Your task to perform on an android device: open the mobile data screen to see how much data has been used Image 0: 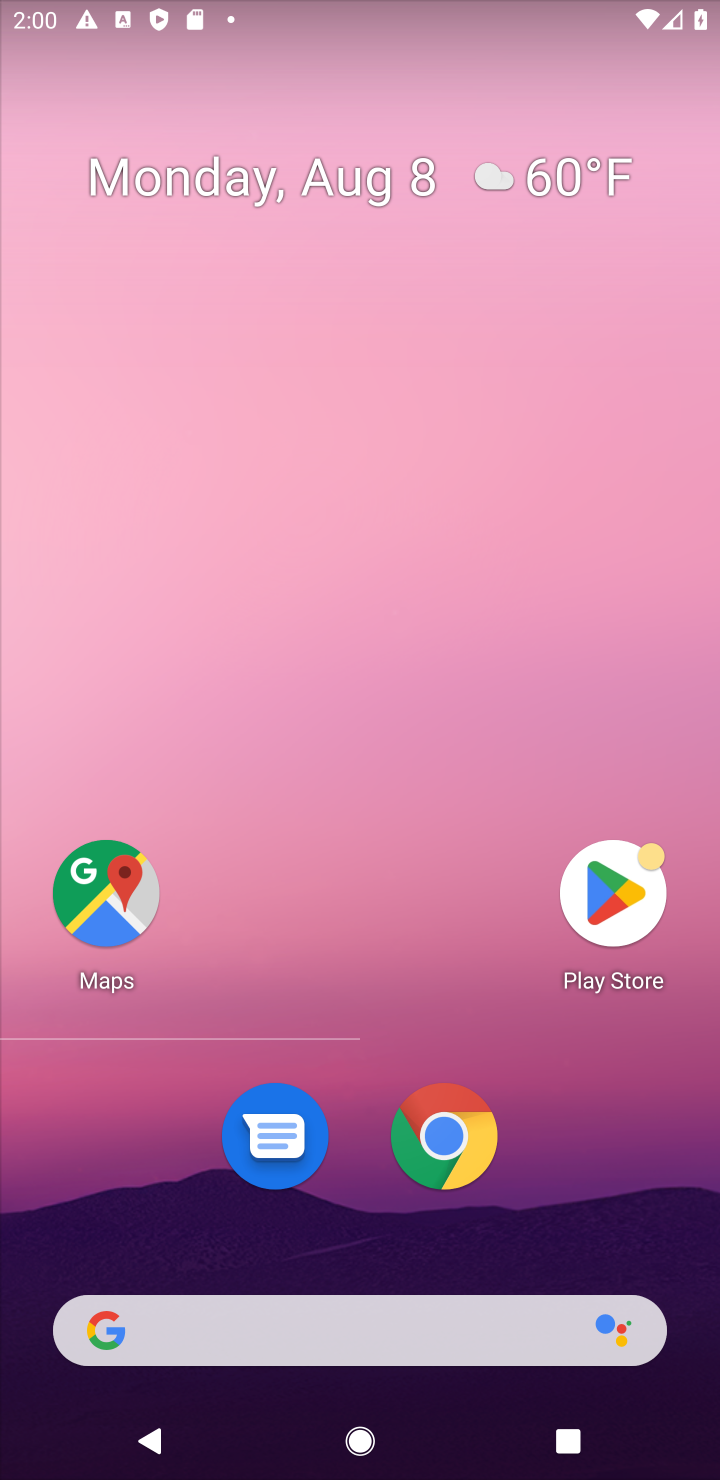
Step 0: drag from (44, 1373) to (323, 416)
Your task to perform on an android device: open the mobile data screen to see how much data has been used Image 1: 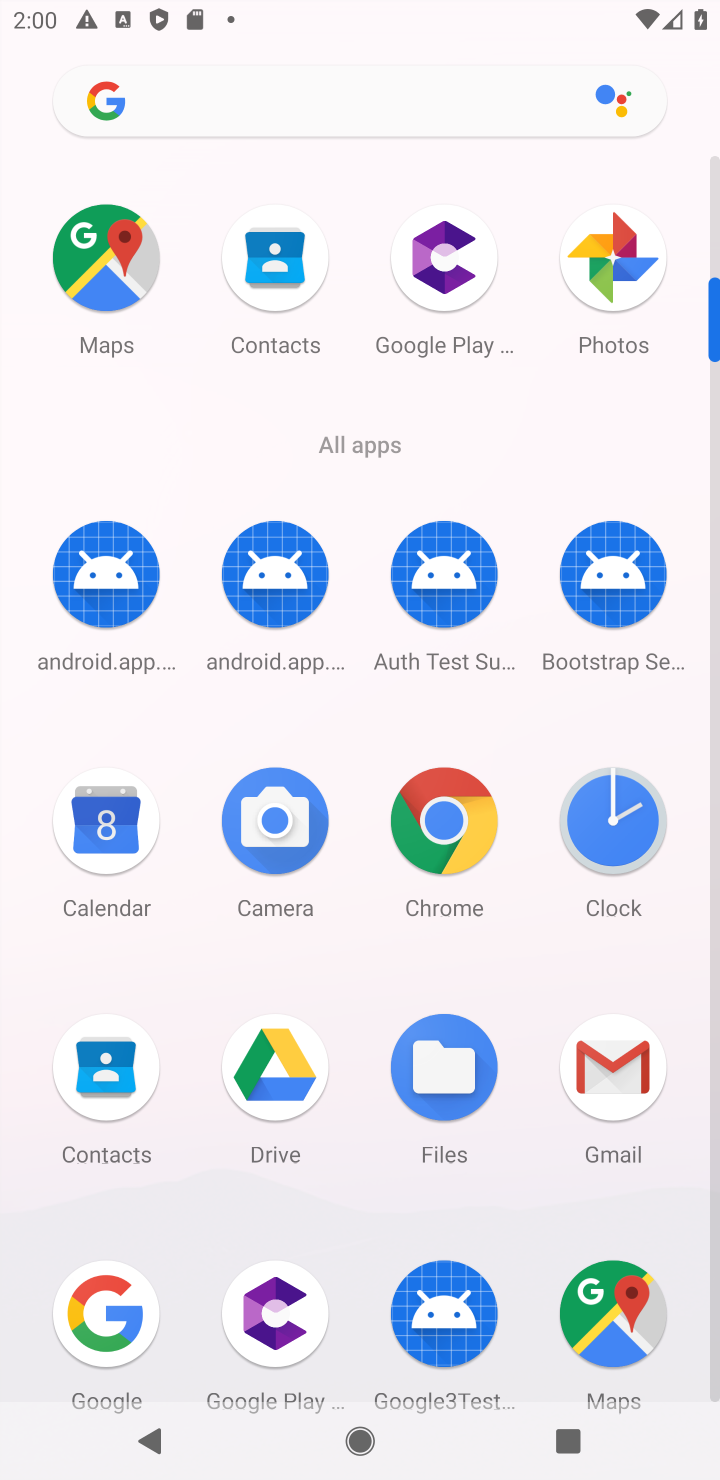
Step 1: drag from (372, 1259) to (435, 375)
Your task to perform on an android device: open the mobile data screen to see how much data has been used Image 2: 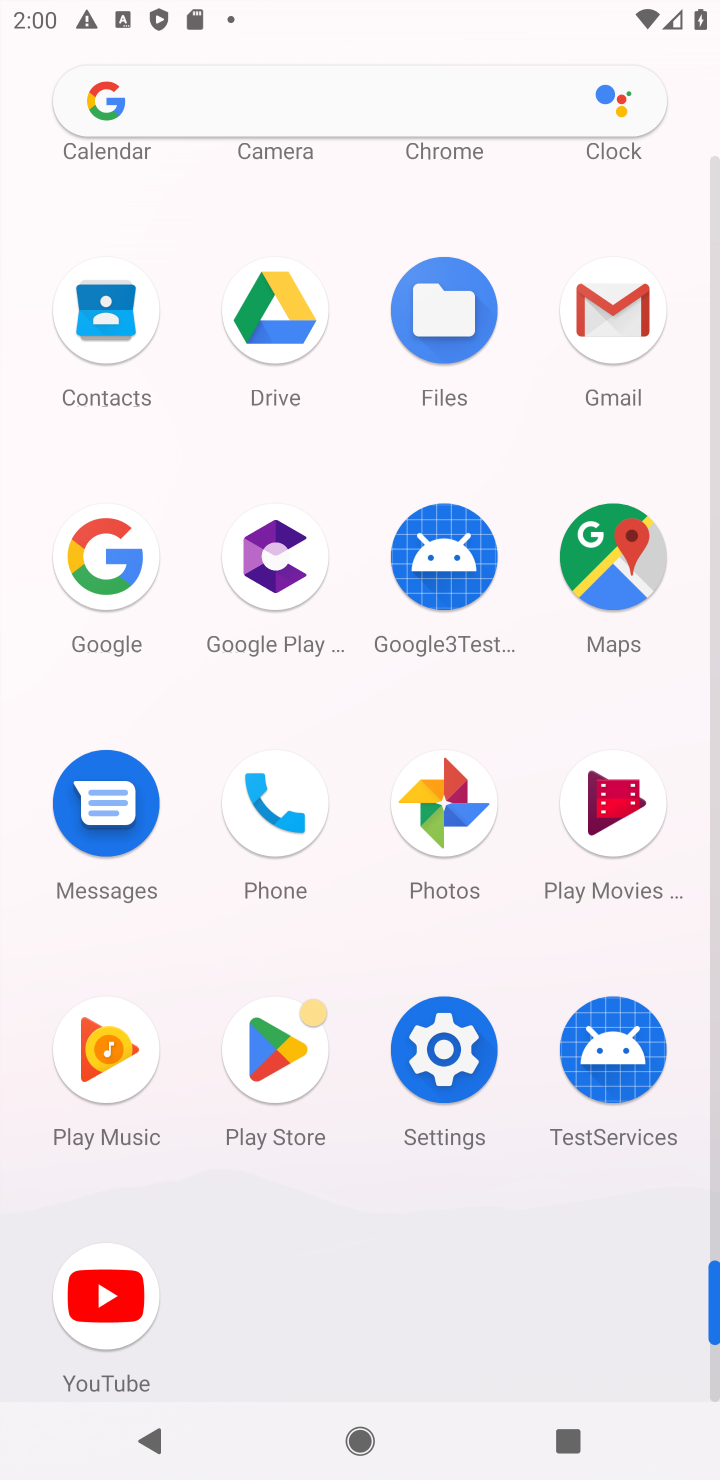
Step 2: click (438, 1076)
Your task to perform on an android device: open the mobile data screen to see how much data has been used Image 3: 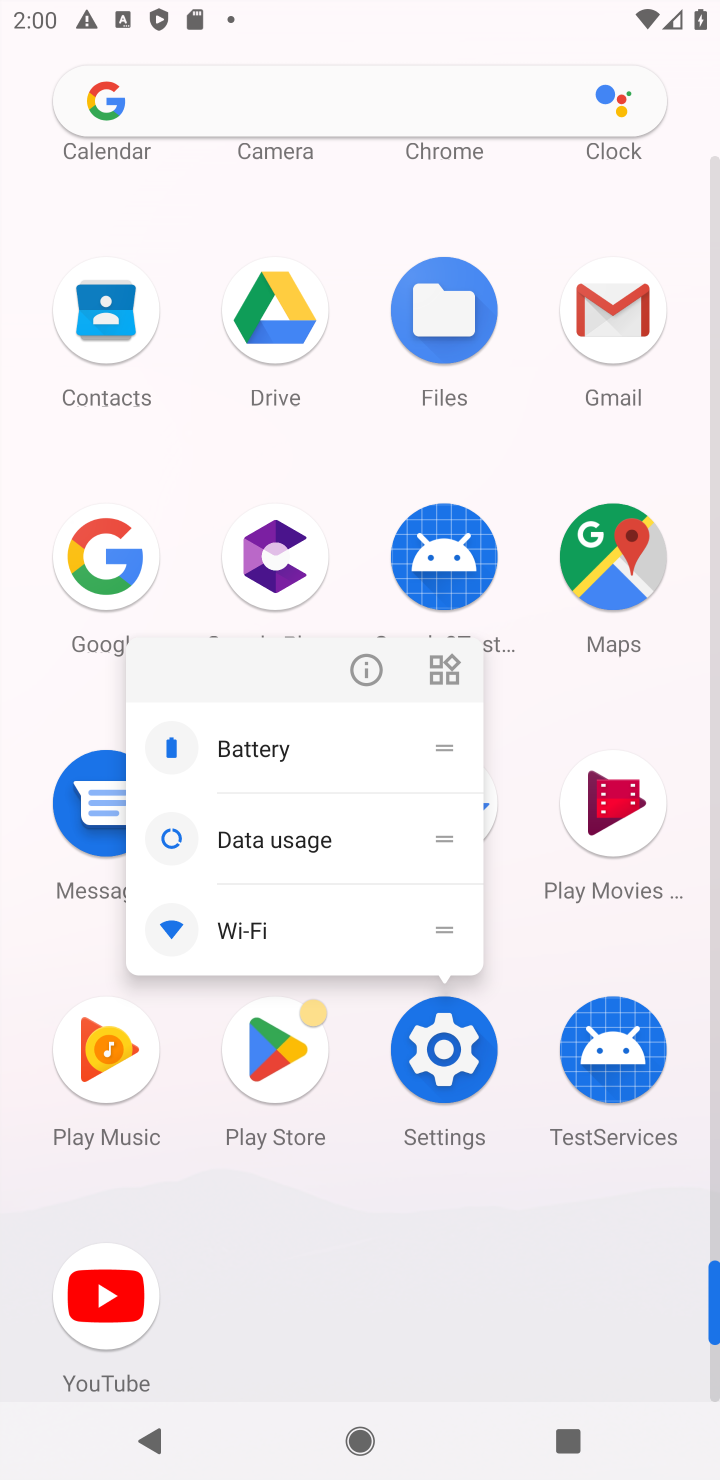
Step 3: click (438, 1076)
Your task to perform on an android device: open the mobile data screen to see how much data has been used Image 4: 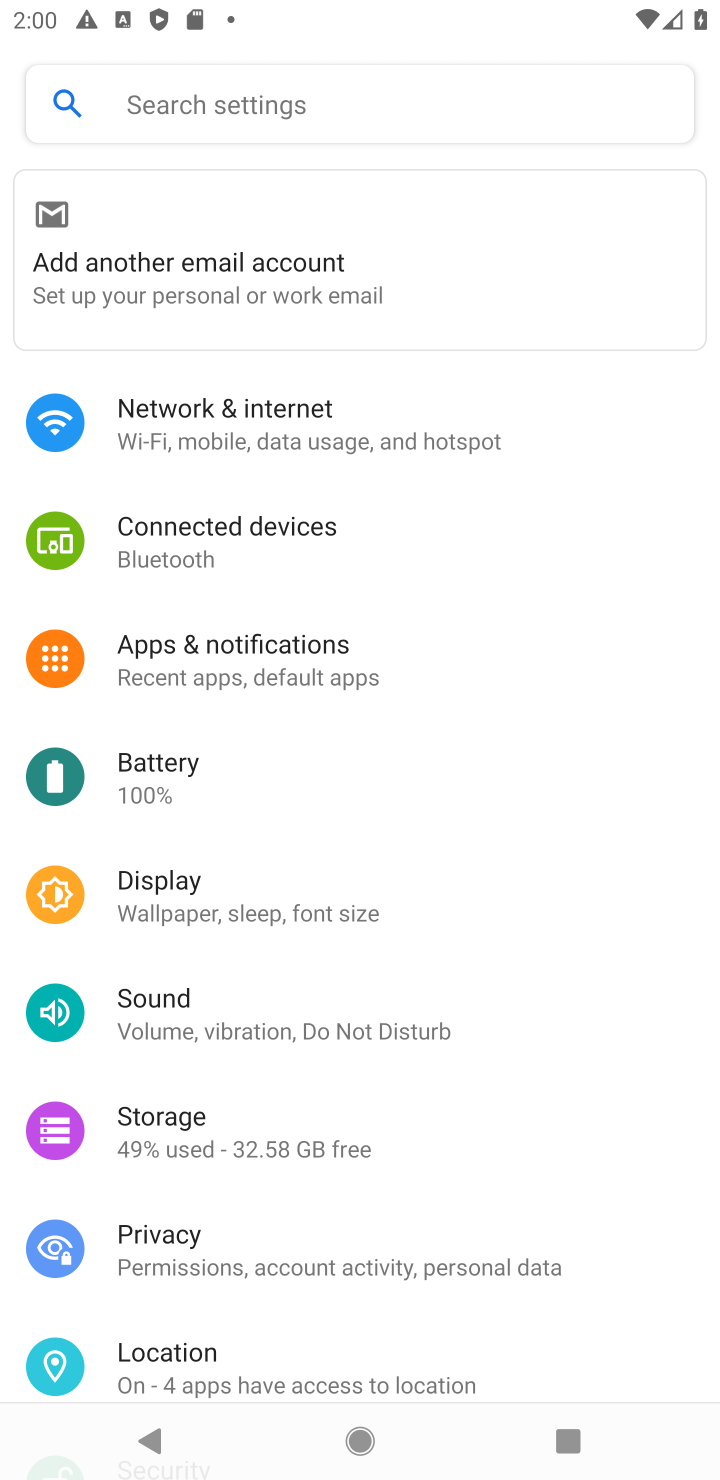
Step 4: click (266, 424)
Your task to perform on an android device: open the mobile data screen to see how much data has been used Image 5: 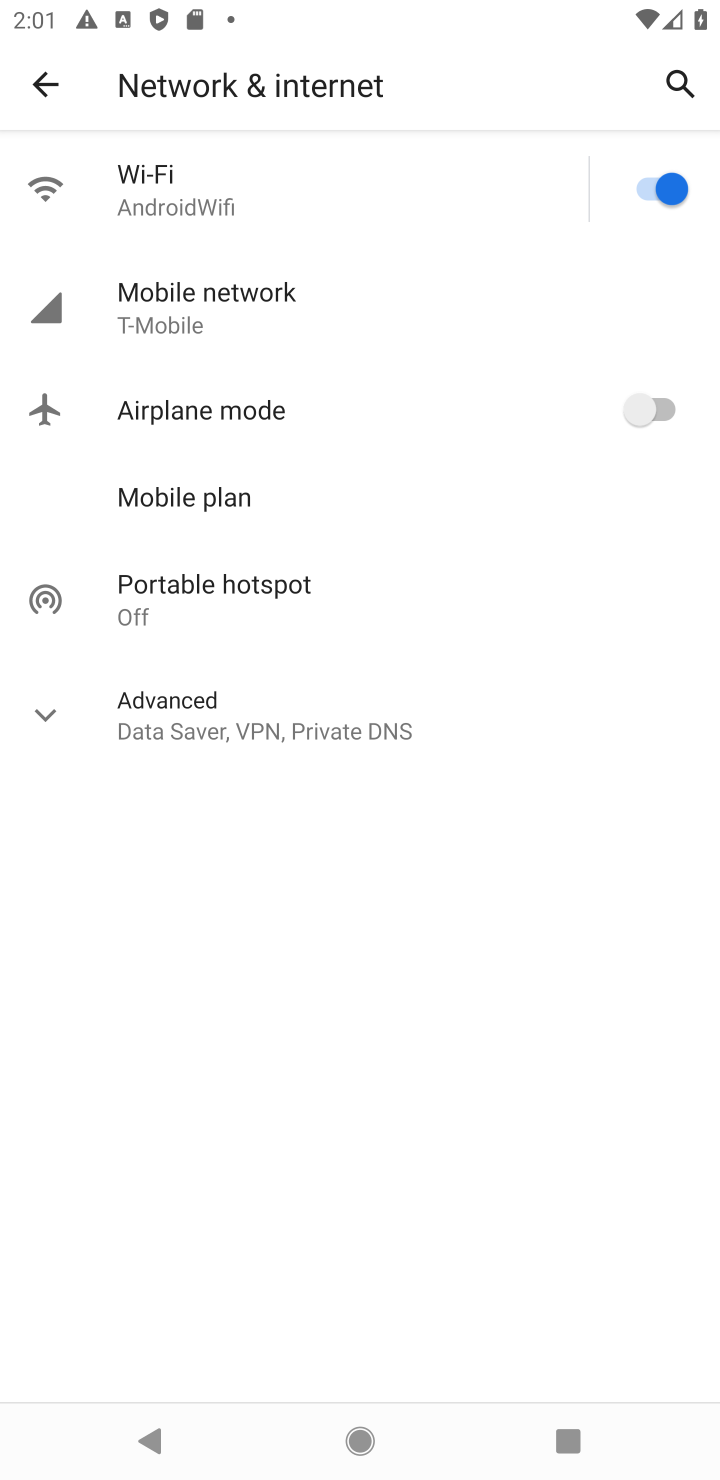
Step 5: click (234, 299)
Your task to perform on an android device: open the mobile data screen to see how much data has been used Image 6: 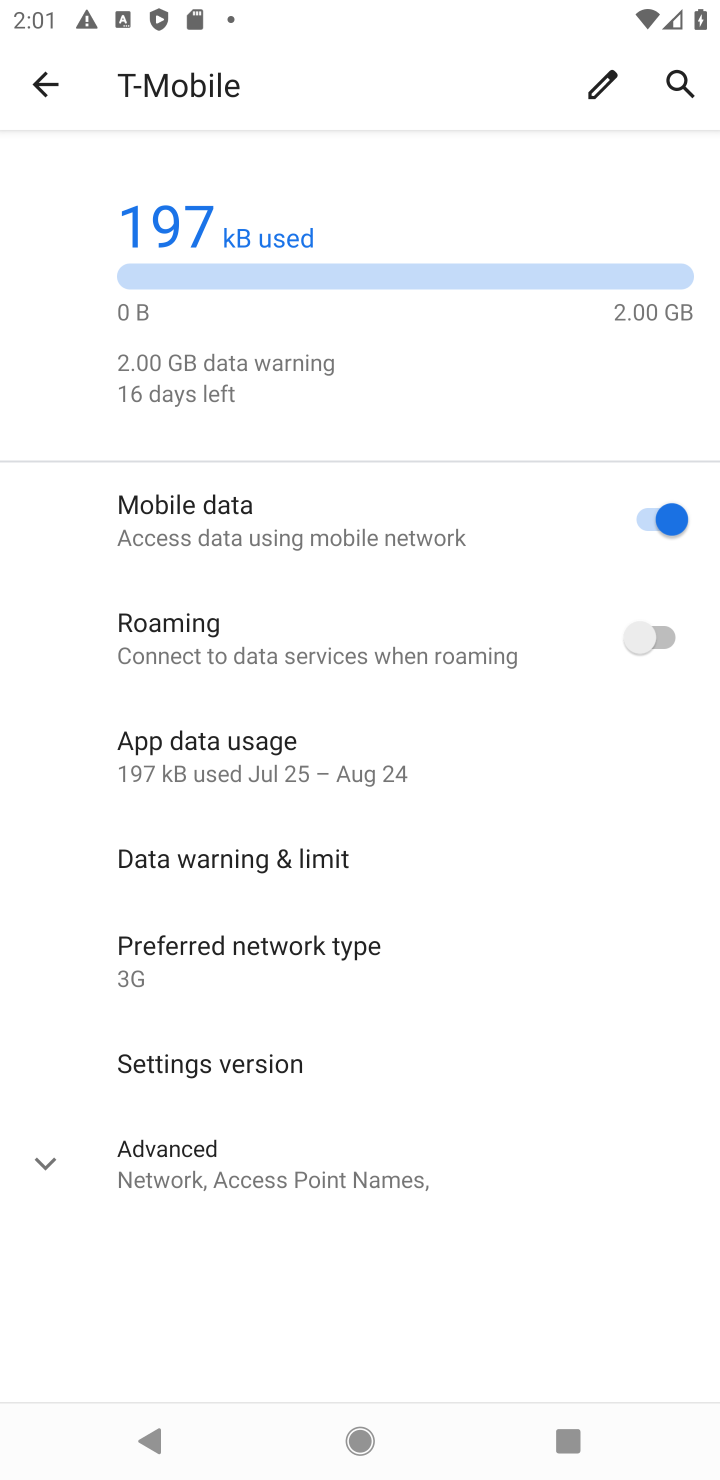
Step 6: task complete